Your task to perform on an android device: open app "Etsy: Buy & Sell Unique Items" (install if not already installed), go to login, and select forgot password Image 0: 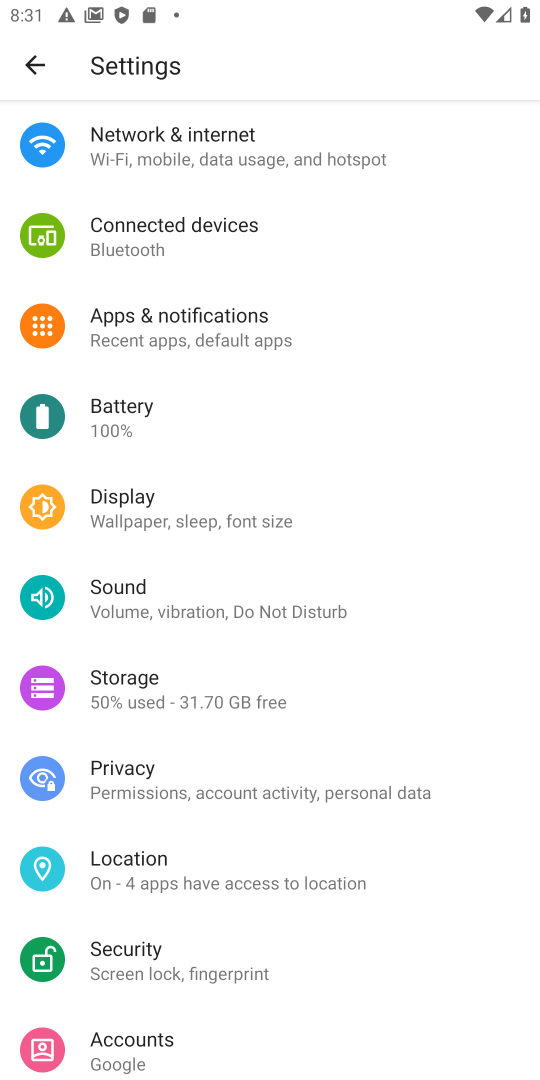
Step 0: press home button
Your task to perform on an android device: open app "Etsy: Buy & Sell Unique Items" (install if not already installed), go to login, and select forgot password Image 1: 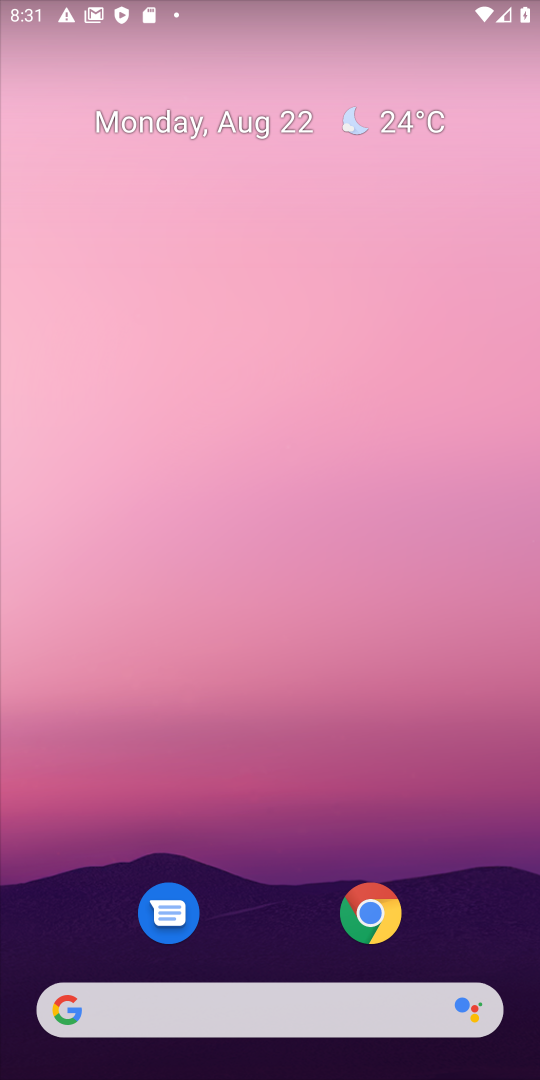
Step 1: drag from (200, 998) to (170, 675)
Your task to perform on an android device: open app "Etsy: Buy & Sell Unique Items" (install if not already installed), go to login, and select forgot password Image 2: 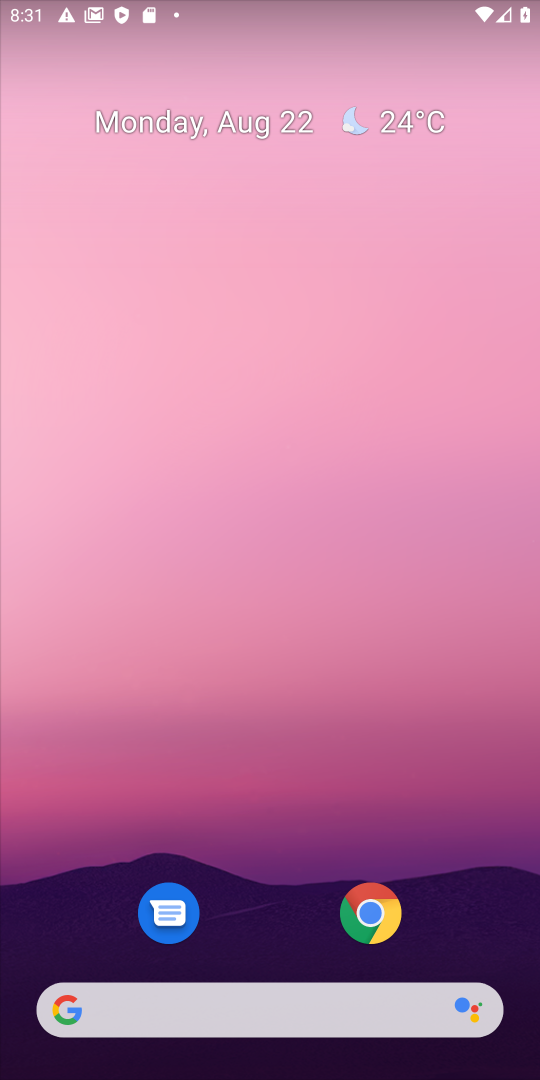
Step 2: drag from (188, 1000) to (167, 839)
Your task to perform on an android device: open app "Etsy: Buy & Sell Unique Items" (install if not already installed), go to login, and select forgot password Image 3: 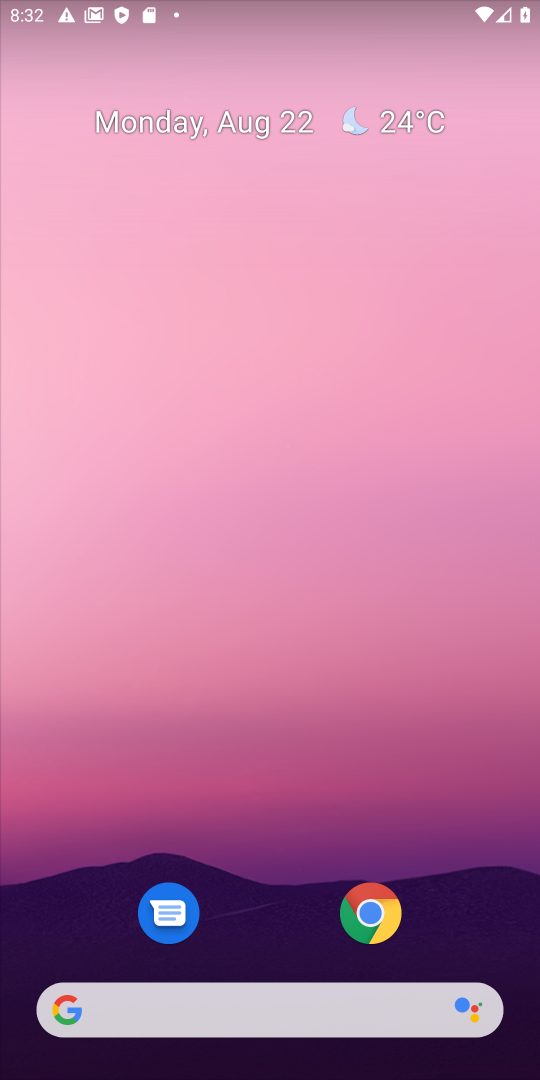
Step 3: drag from (191, 1001) to (189, 454)
Your task to perform on an android device: open app "Etsy: Buy & Sell Unique Items" (install if not already installed), go to login, and select forgot password Image 4: 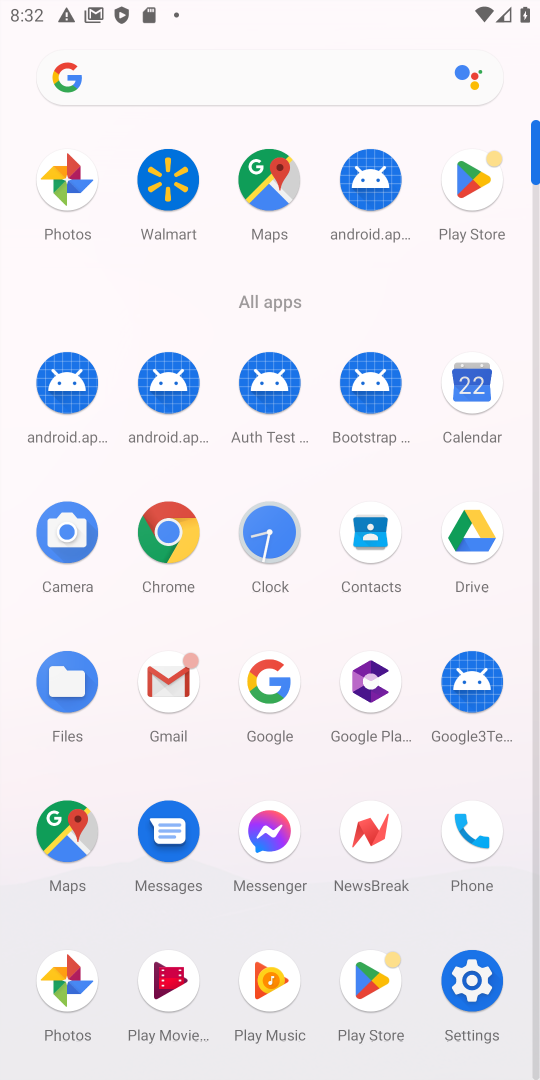
Step 4: click (449, 171)
Your task to perform on an android device: open app "Etsy: Buy & Sell Unique Items" (install if not already installed), go to login, and select forgot password Image 5: 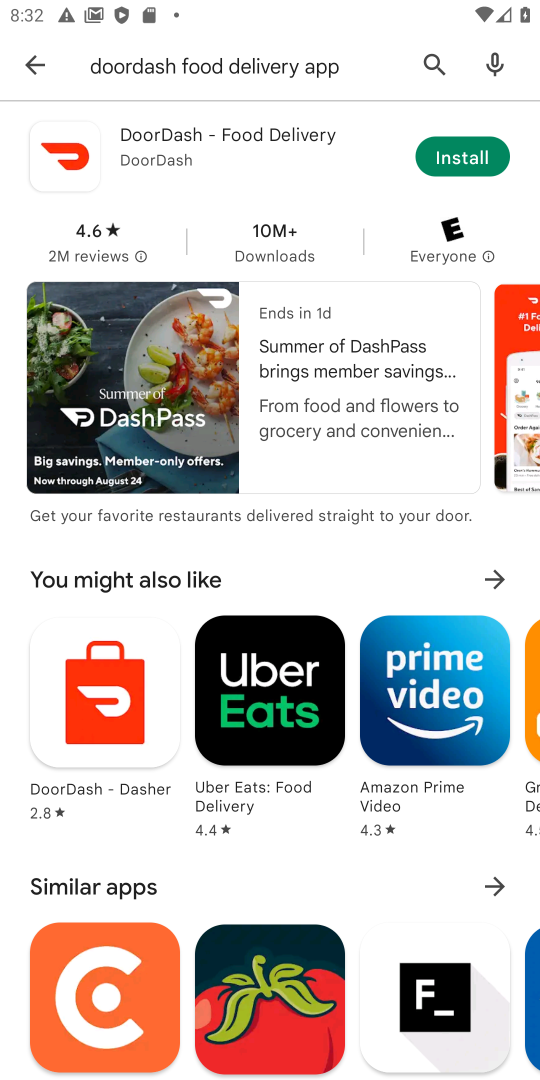
Step 5: click (444, 68)
Your task to perform on an android device: open app "Etsy: Buy & Sell Unique Items" (install if not already installed), go to login, and select forgot password Image 6: 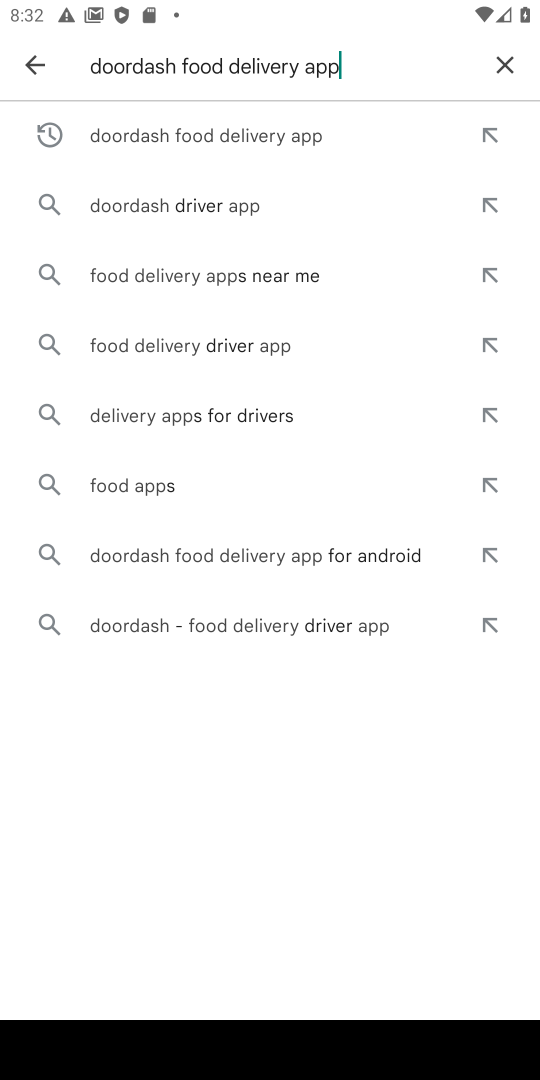
Step 6: click (494, 53)
Your task to perform on an android device: open app "Etsy: Buy & Sell Unique Items" (install if not already installed), go to login, and select forgot password Image 7: 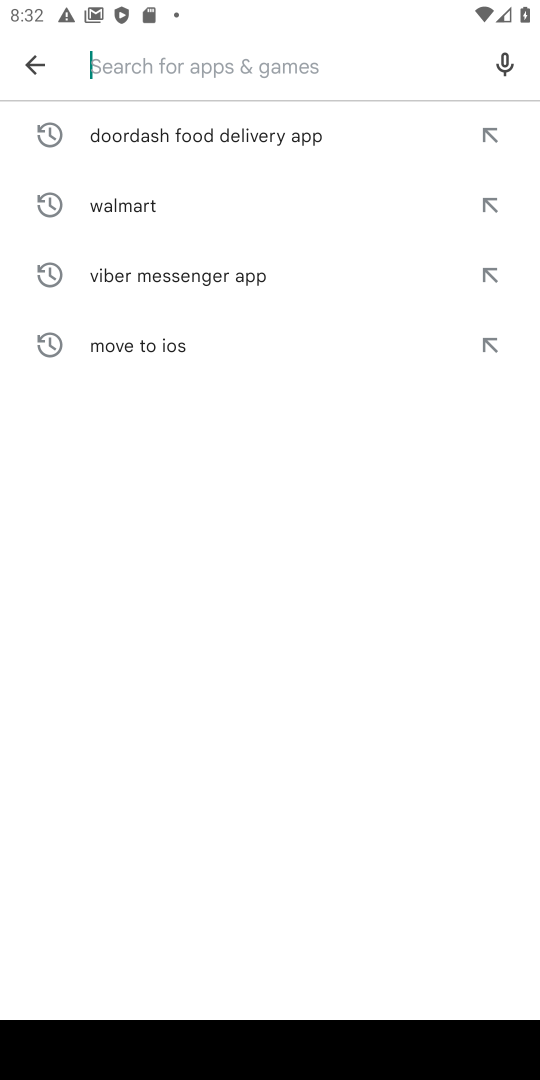
Step 7: type "Etsy: Buy & Sell Unique Items"
Your task to perform on an android device: open app "Etsy: Buy & Sell Unique Items" (install if not already installed), go to login, and select forgot password Image 8: 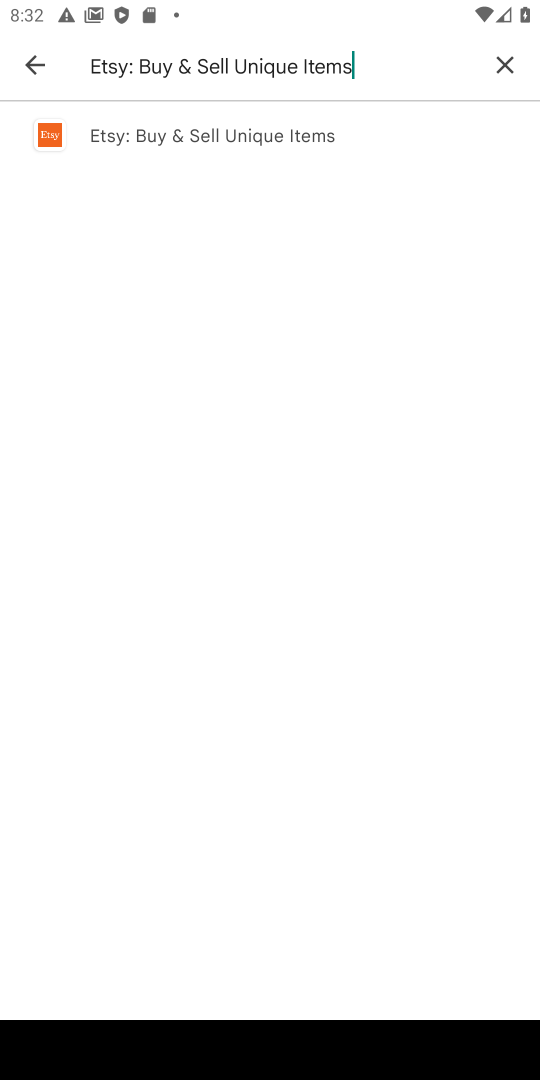
Step 8: click (224, 144)
Your task to perform on an android device: open app "Etsy: Buy & Sell Unique Items" (install if not already installed), go to login, and select forgot password Image 9: 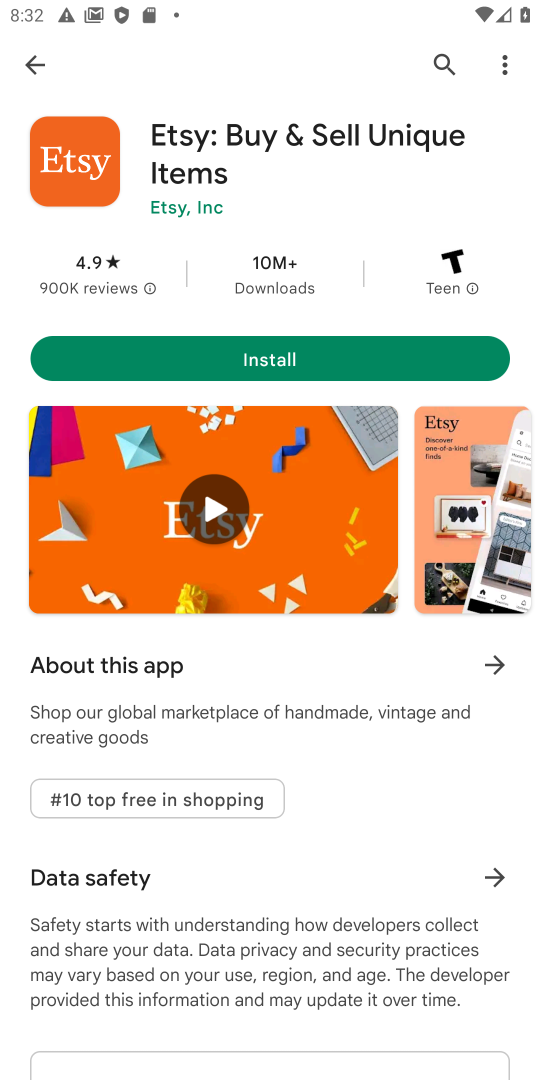
Step 9: click (324, 362)
Your task to perform on an android device: open app "Etsy: Buy & Sell Unique Items" (install if not already installed), go to login, and select forgot password Image 10: 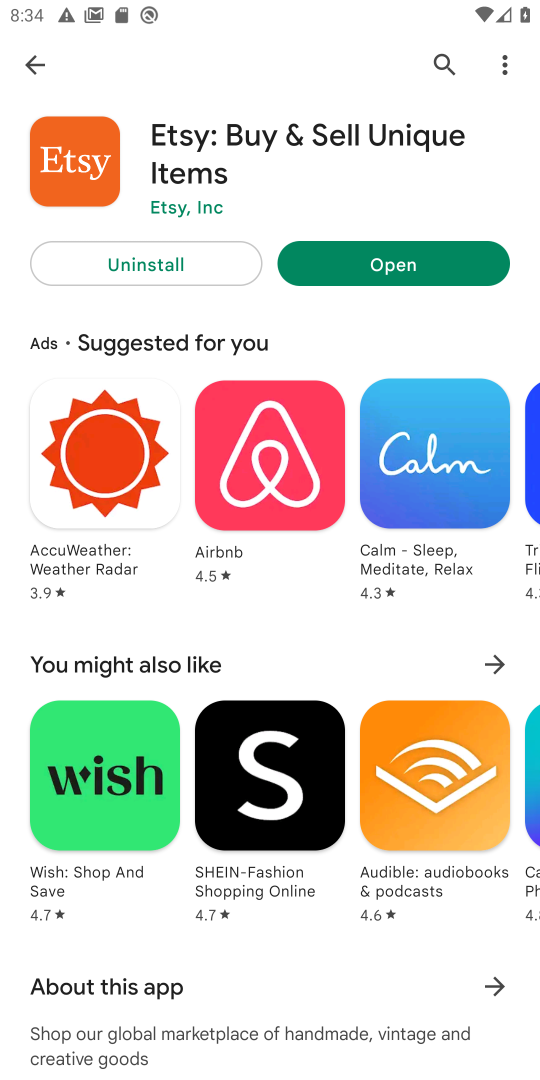
Step 10: click (430, 244)
Your task to perform on an android device: open app "Etsy: Buy & Sell Unique Items" (install if not already installed), go to login, and select forgot password Image 11: 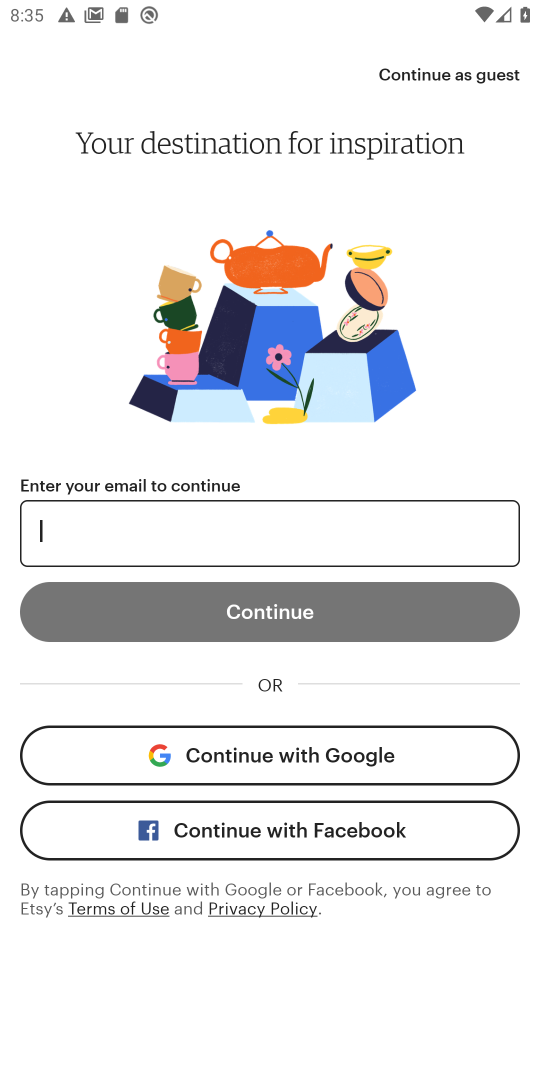
Step 11: task complete